Your task to perform on an android device: set an alarm Image 0: 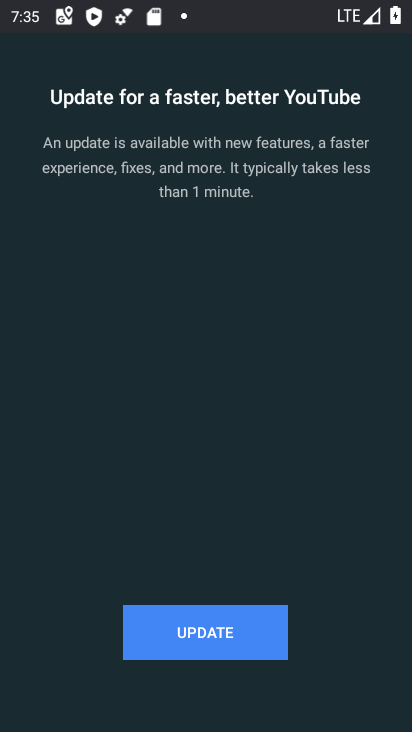
Step 0: press home button
Your task to perform on an android device: set an alarm Image 1: 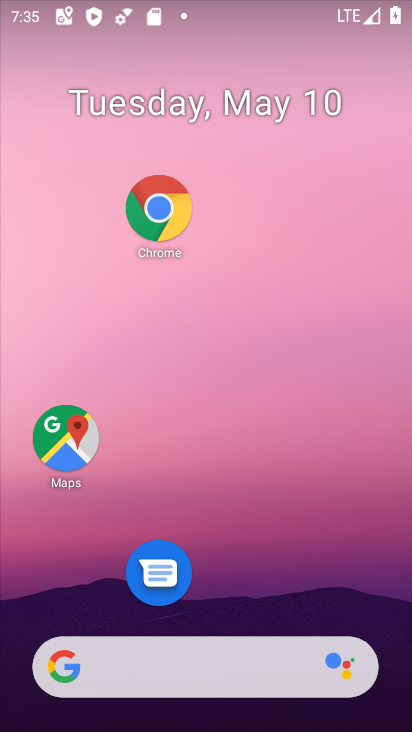
Step 1: drag from (300, 702) to (395, 170)
Your task to perform on an android device: set an alarm Image 2: 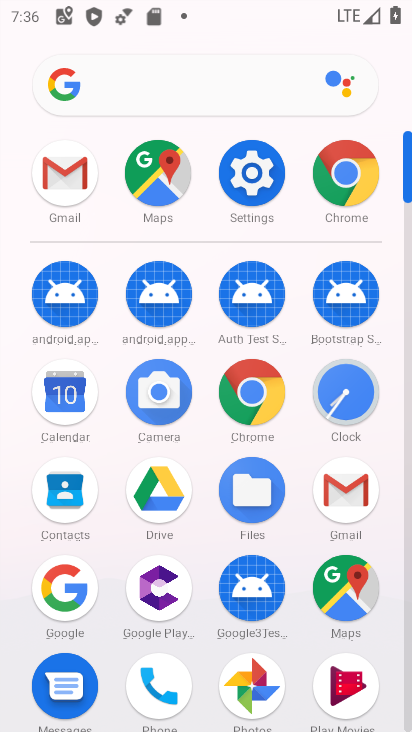
Step 2: click (358, 394)
Your task to perform on an android device: set an alarm Image 3: 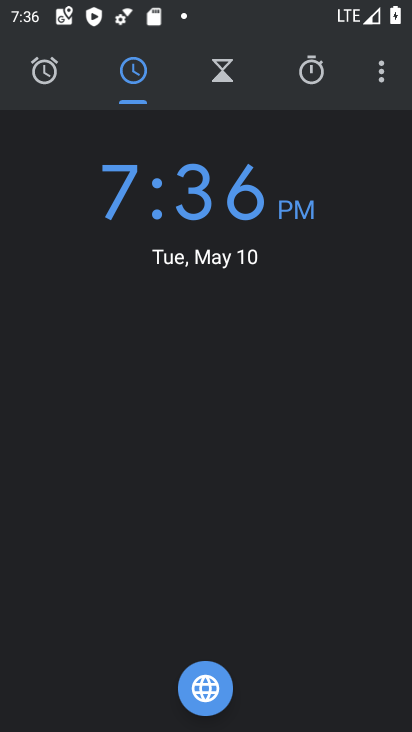
Step 3: click (61, 71)
Your task to perform on an android device: set an alarm Image 4: 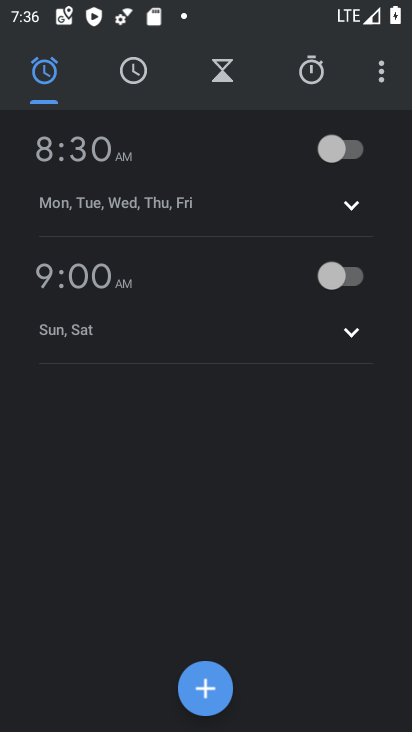
Step 4: click (182, 150)
Your task to perform on an android device: set an alarm Image 5: 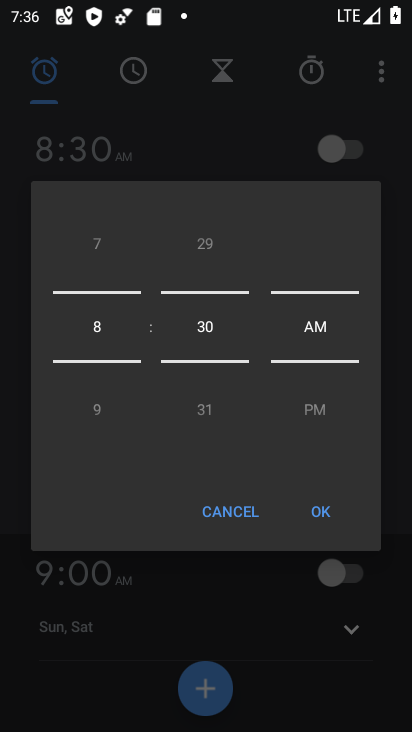
Step 5: click (308, 497)
Your task to perform on an android device: set an alarm Image 6: 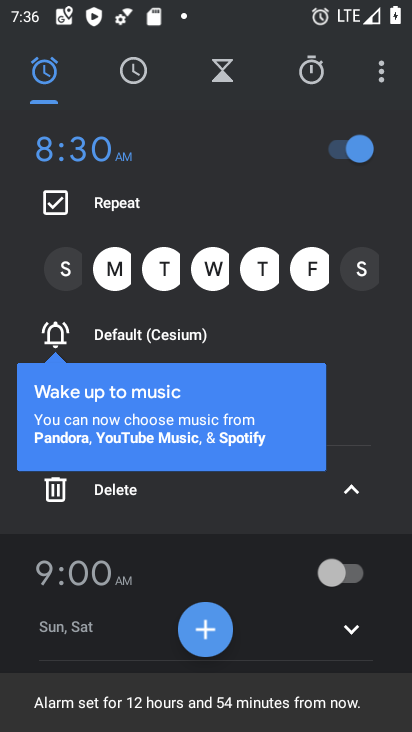
Step 6: task complete